Your task to perform on an android device: Open calendar and show me the second week of next month Image 0: 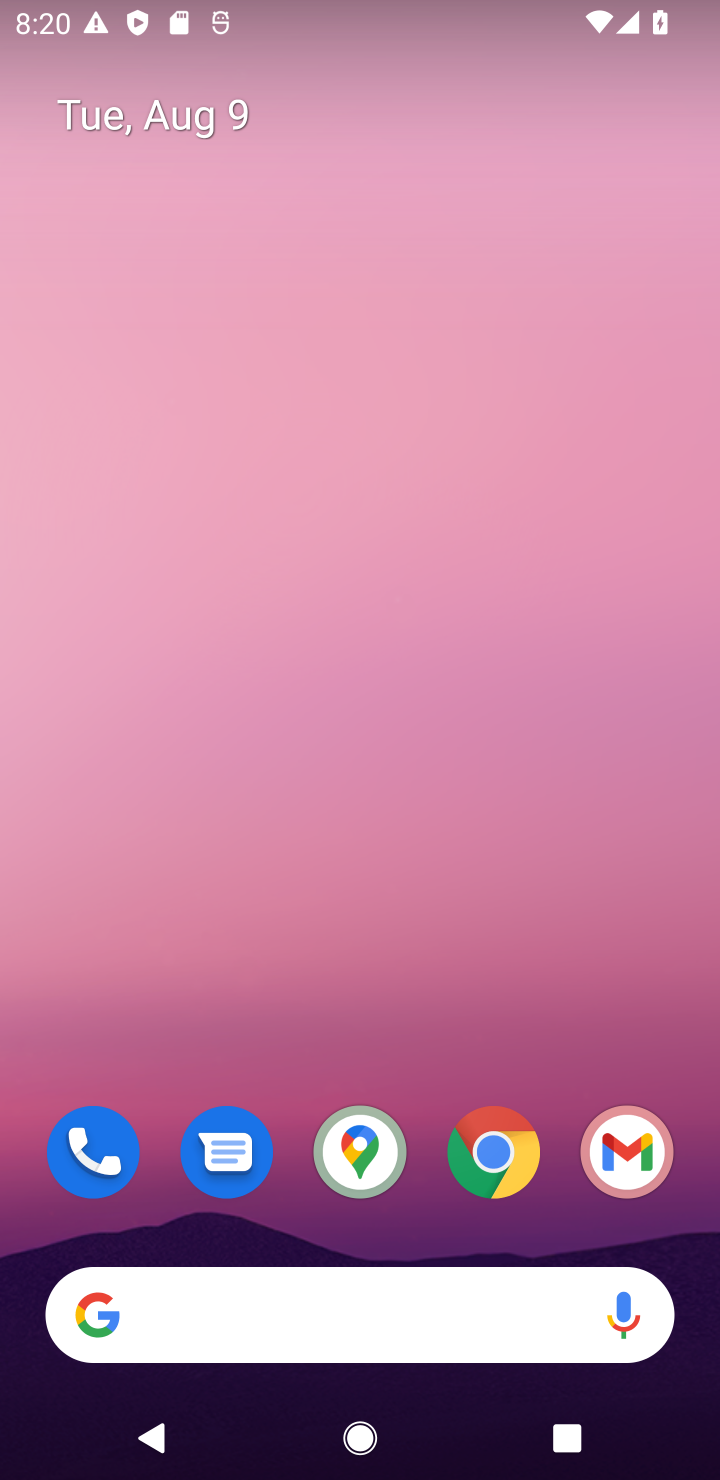
Step 0: click (222, 142)
Your task to perform on an android device: Open calendar and show me the second week of next month Image 1: 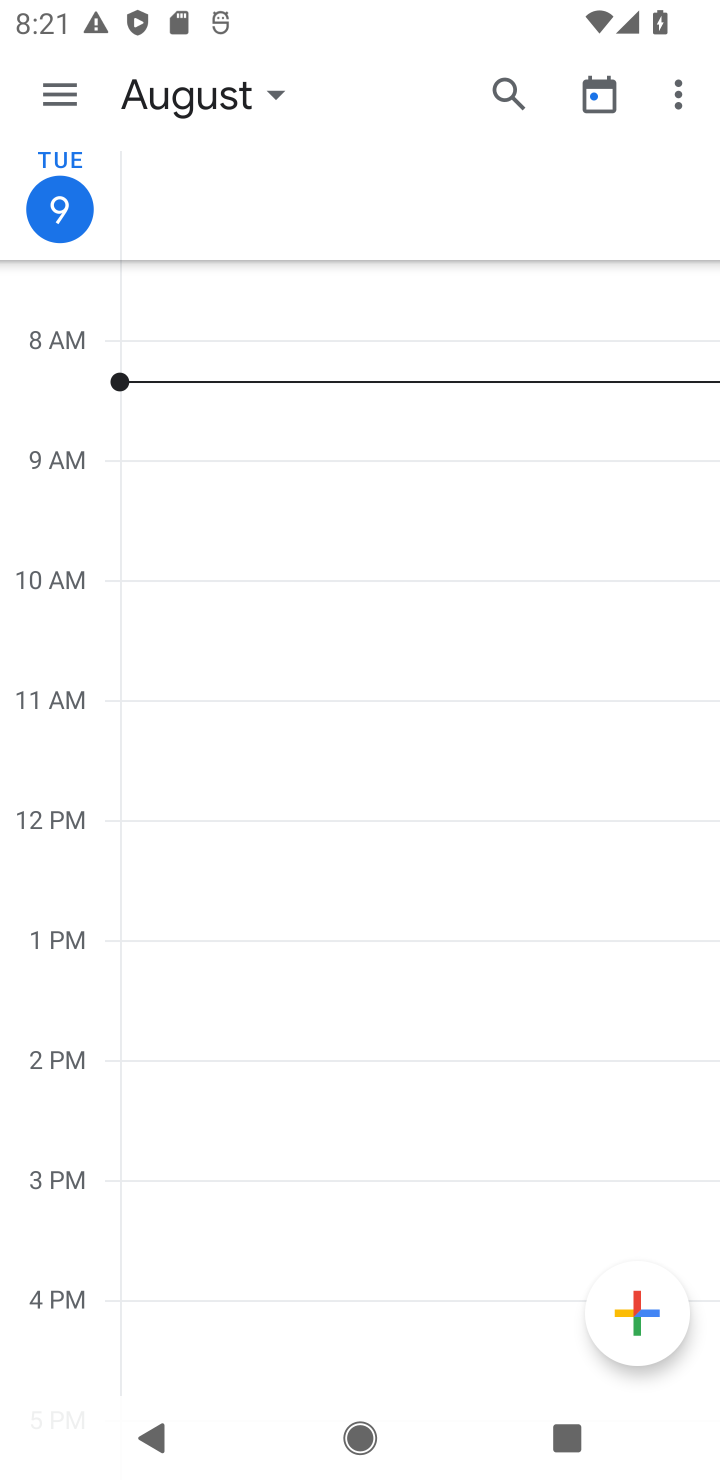
Step 1: click (176, 89)
Your task to perform on an android device: Open calendar and show me the second week of next month Image 2: 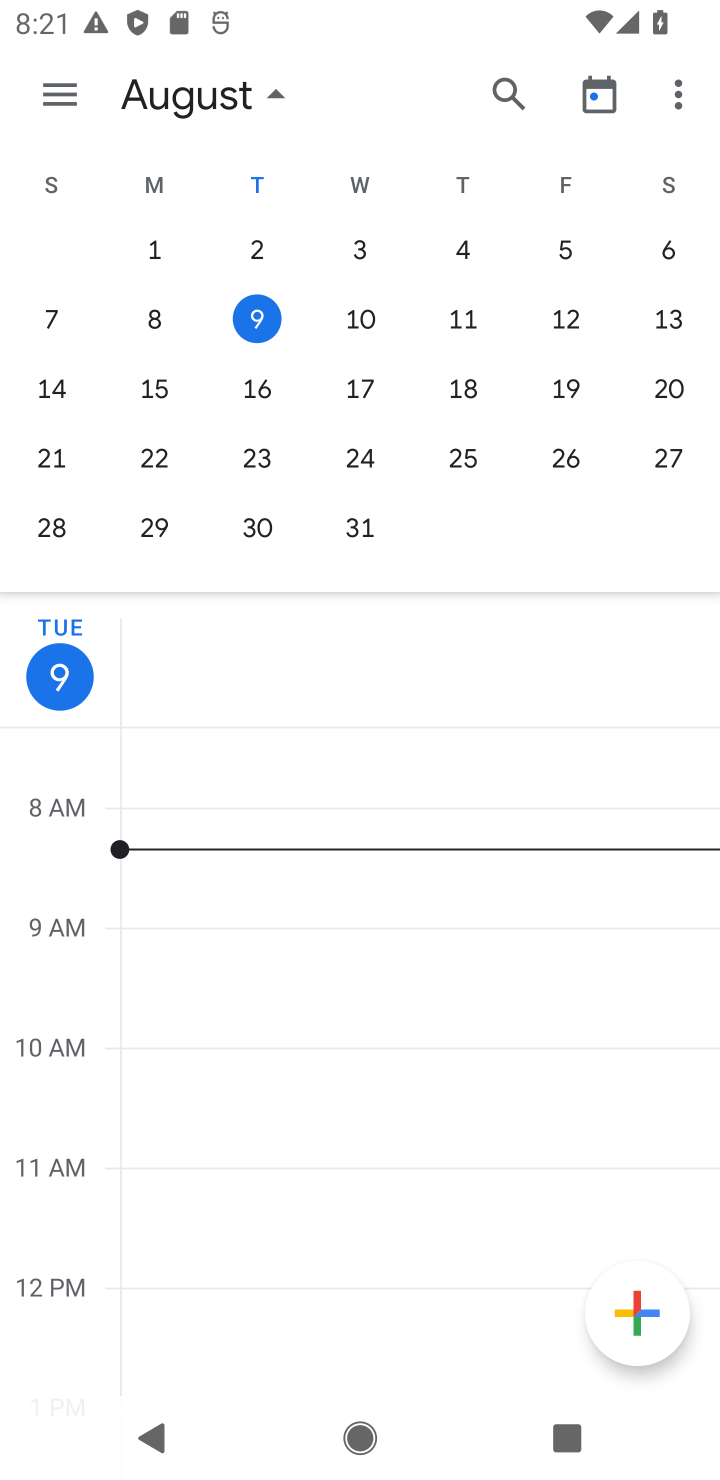
Step 2: click (353, 317)
Your task to perform on an android device: Open calendar and show me the second week of next month Image 3: 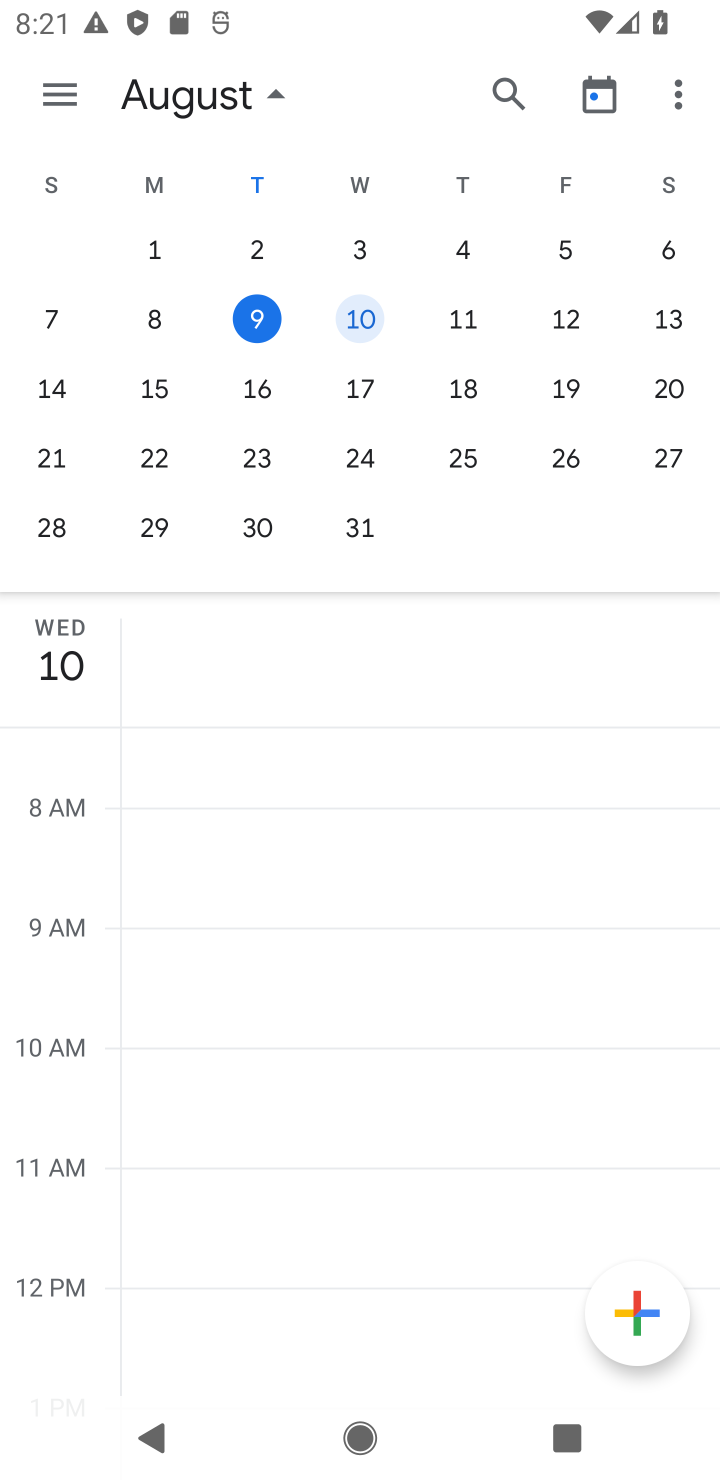
Step 3: task complete